Your task to perform on an android device: open a new tab in the chrome app Image 0: 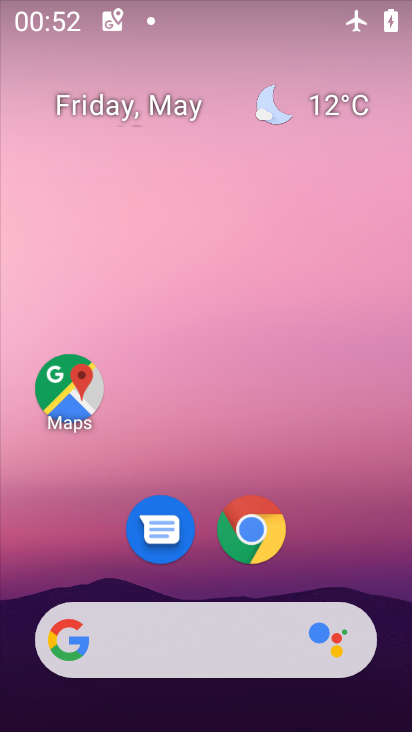
Step 0: drag from (286, 557) to (286, 239)
Your task to perform on an android device: open a new tab in the chrome app Image 1: 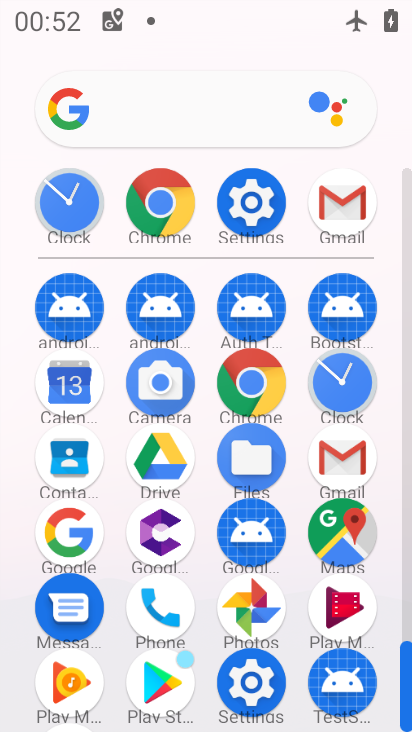
Step 1: click (148, 193)
Your task to perform on an android device: open a new tab in the chrome app Image 2: 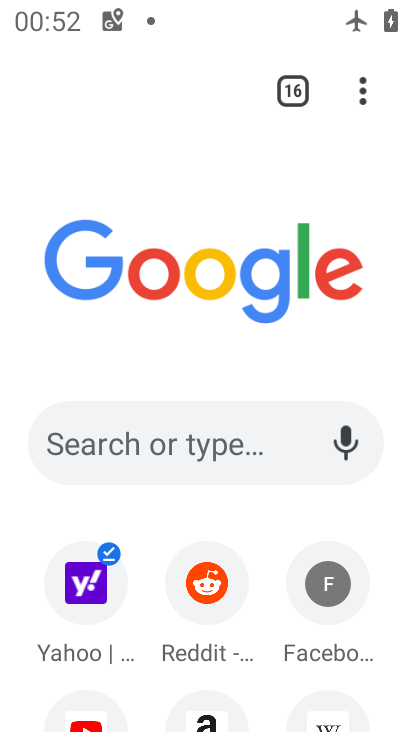
Step 2: click (370, 89)
Your task to perform on an android device: open a new tab in the chrome app Image 3: 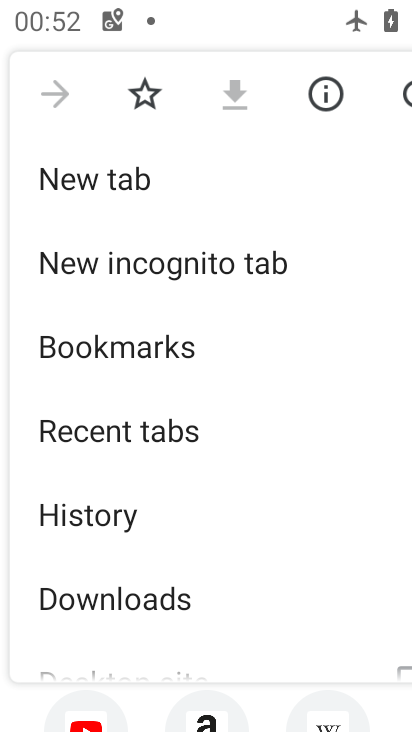
Step 3: click (90, 193)
Your task to perform on an android device: open a new tab in the chrome app Image 4: 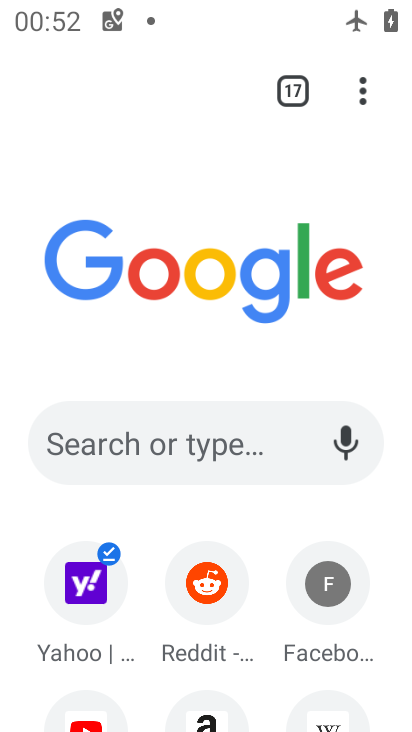
Step 4: task complete